Your task to perform on an android device: change the upload size in google photos Image 0: 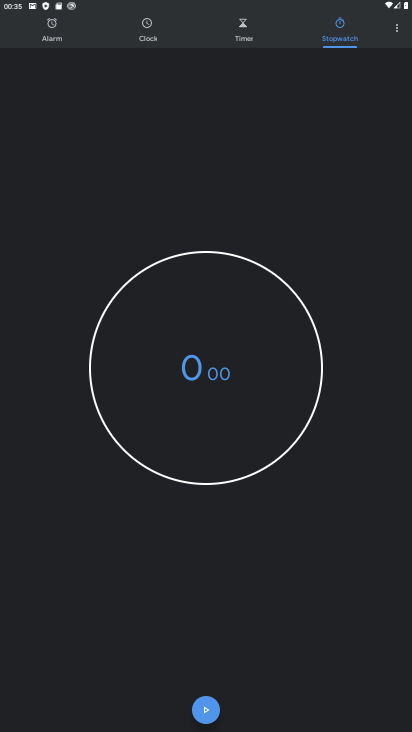
Step 0: press home button
Your task to perform on an android device: change the upload size in google photos Image 1: 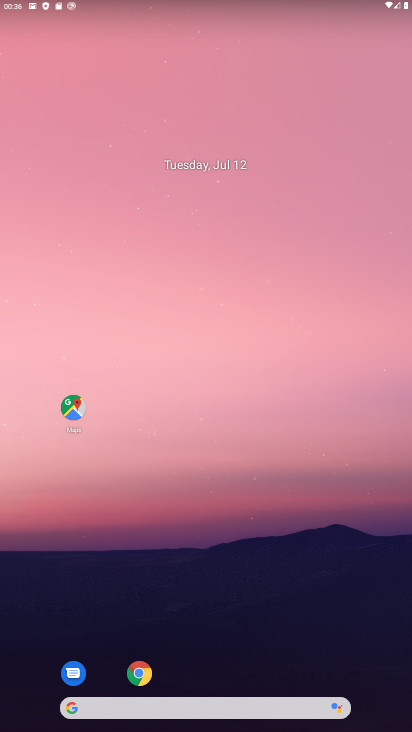
Step 1: drag from (278, 676) to (274, 17)
Your task to perform on an android device: change the upload size in google photos Image 2: 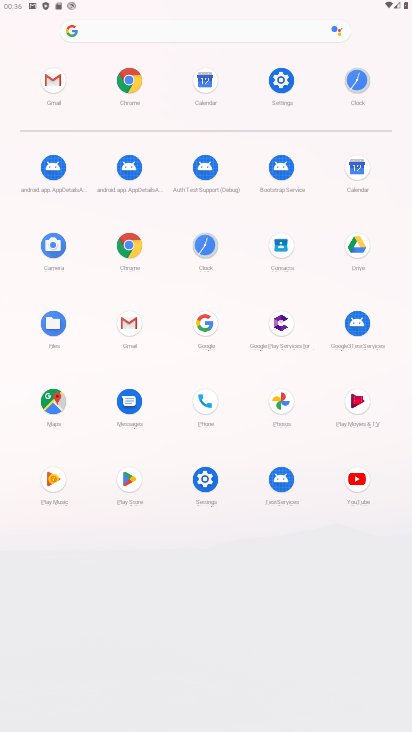
Step 2: click (284, 406)
Your task to perform on an android device: change the upload size in google photos Image 3: 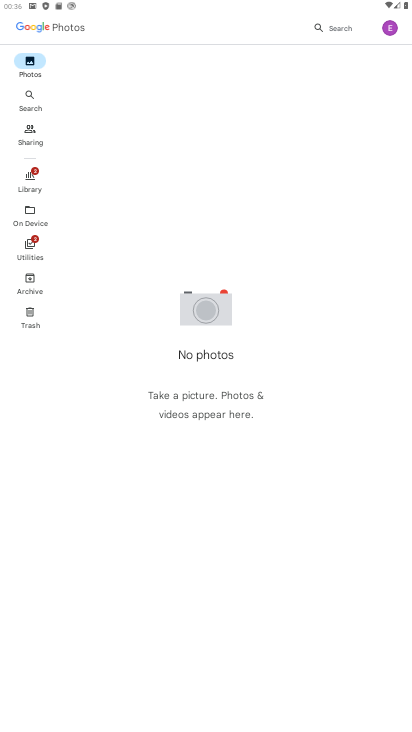
Step 3: click (391, 32)
Your task to perform on an android device: change the upload size in google photos Image 4: 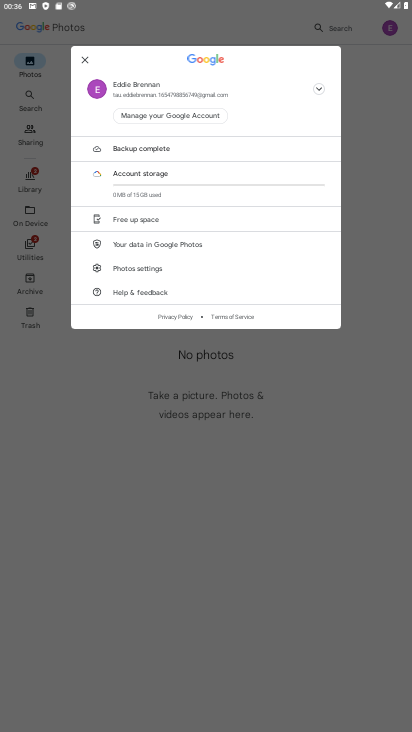
Step 4: click (109, 265)
Your task to perform on an android device: change the upload size in google photos Image 5: 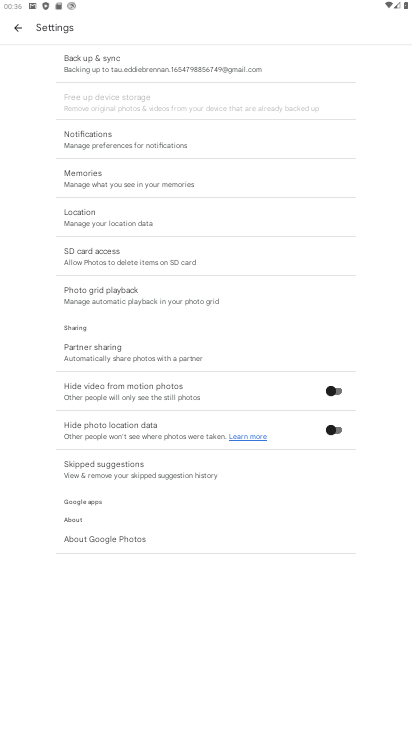
Step 5: click (202, 61)
Your task to perform on an android device: change the upload size in google photos Image 6: 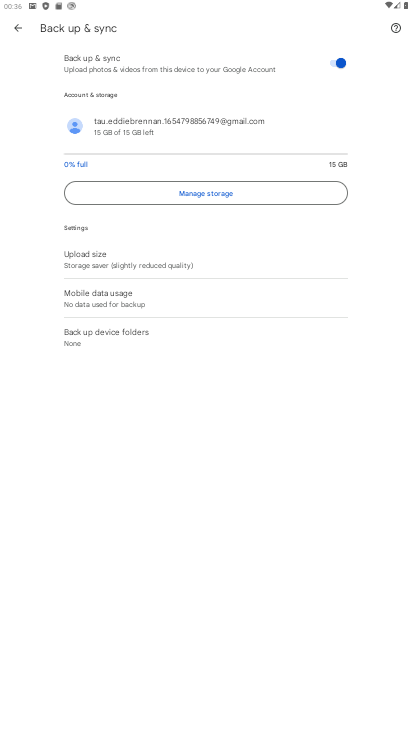
Step 6: click (122, 263)
Your task to perform on an android device: change the upload size in google photos Image 7: 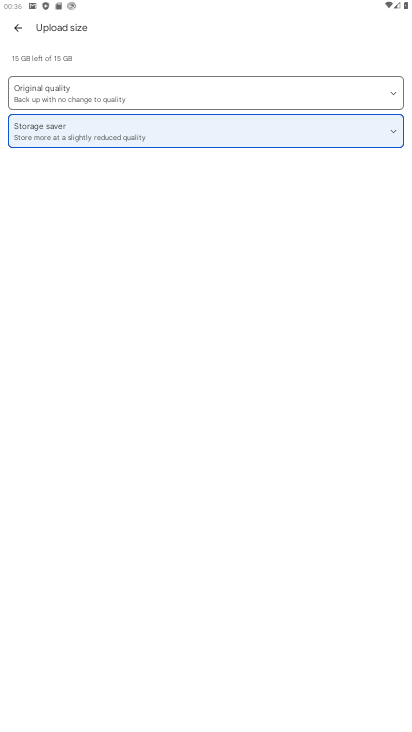
Step 7: click (103, 89)
Your task to perform on an android device: change the upload size in google photos Image 8: 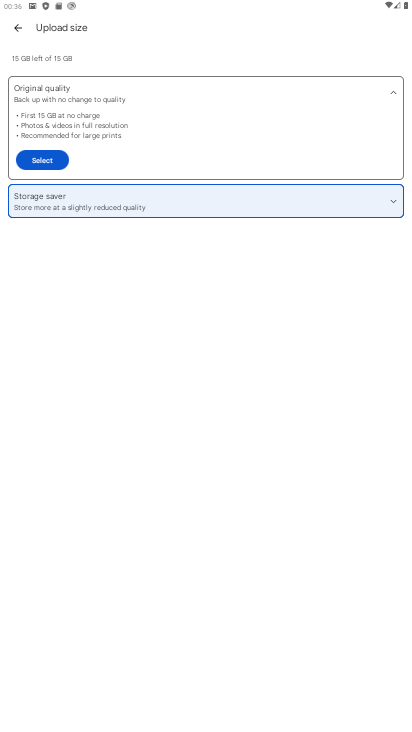
Step 8: click (46, 151)
Your task to perform on an android device: change the upload size in google photos Image 9: 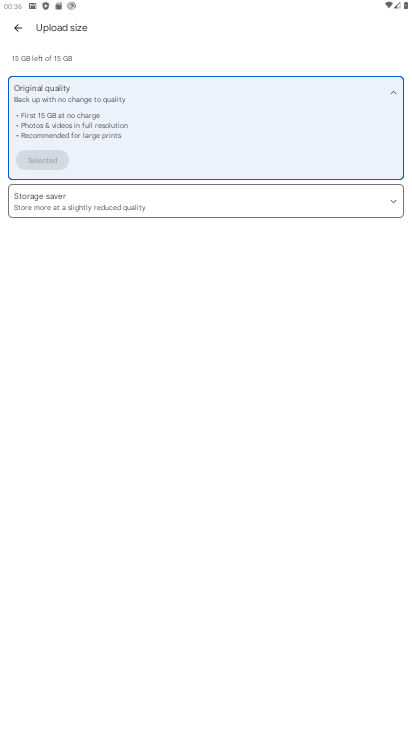
Step 9: task complete